Your task to perform on an android device: move an email to a new category in the gmail app Image 0: 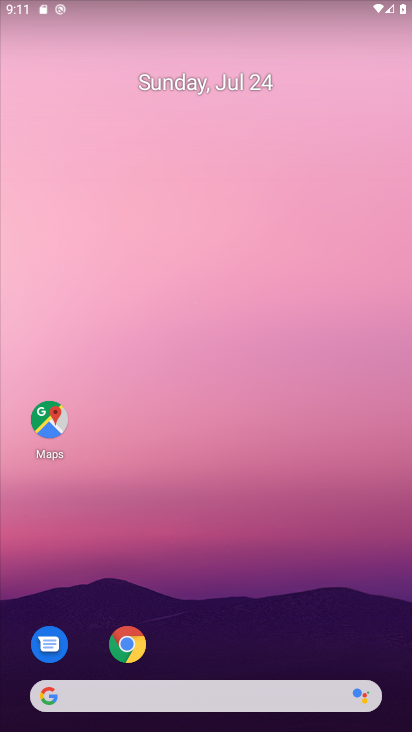
Step 0: drag from (277, 480) to (278, 0)
Your task to perform on an android device: move an email to a new category in the gmail app Image 1: 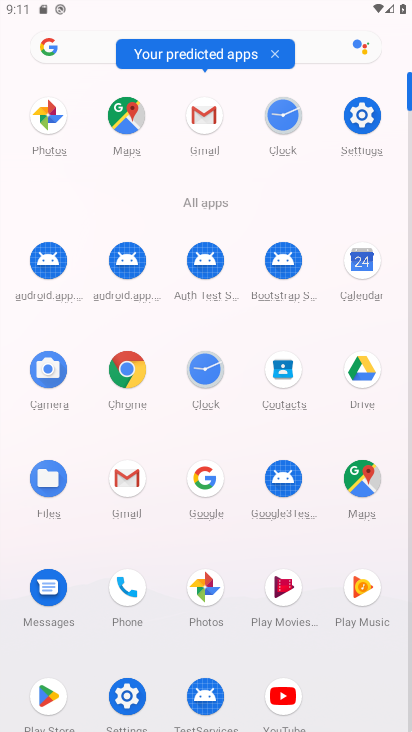
Step 1: click (200, 115)
Your task to perform on an android device: move an email to a new category in the gmail app Image 2: 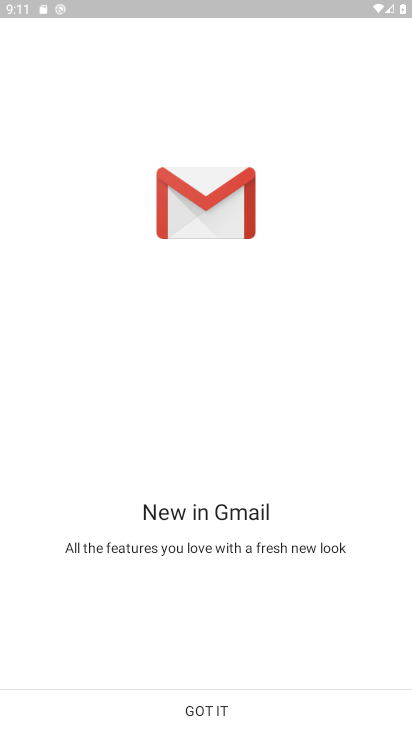
Step 2: click (218, 716)
Your task to perform on an android device: move an email to a new category in the gmail app Image 3: 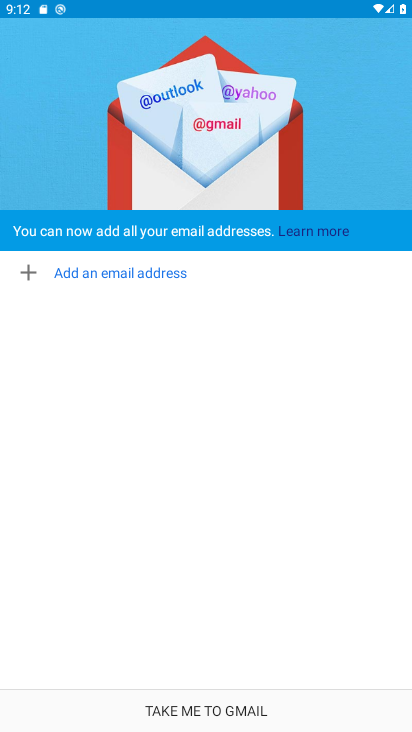
Step 3: click (224, 716)
Your task to perform on an android device: move an email to a new category in the gmail app Image 4: 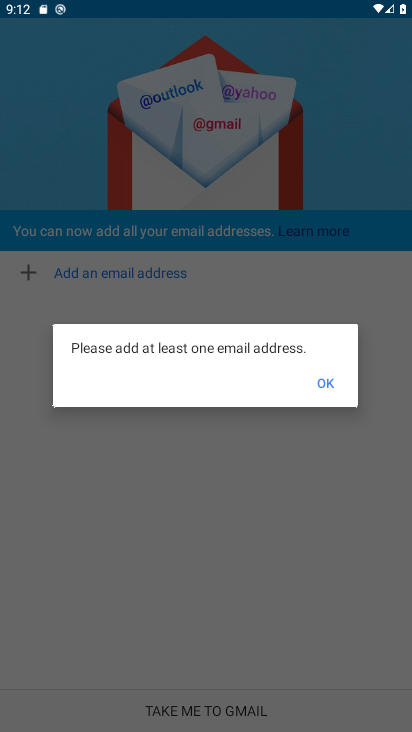
Step 4: task complete